Your task to perform on an android device: turn on wifi Image 0: 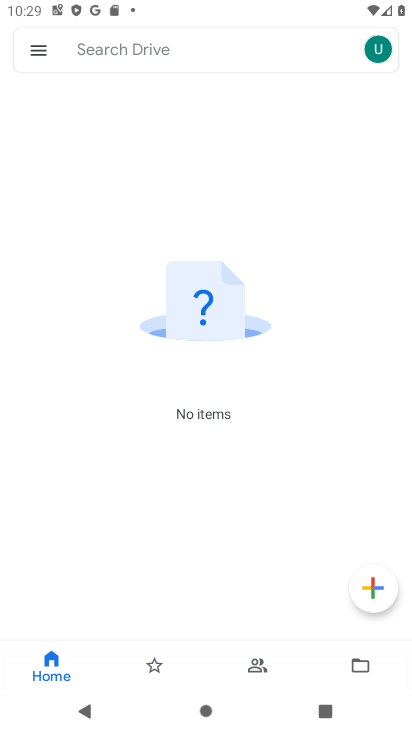
Step 0: press home button
Your task to perform on an android device: turn on wifi Image 1: 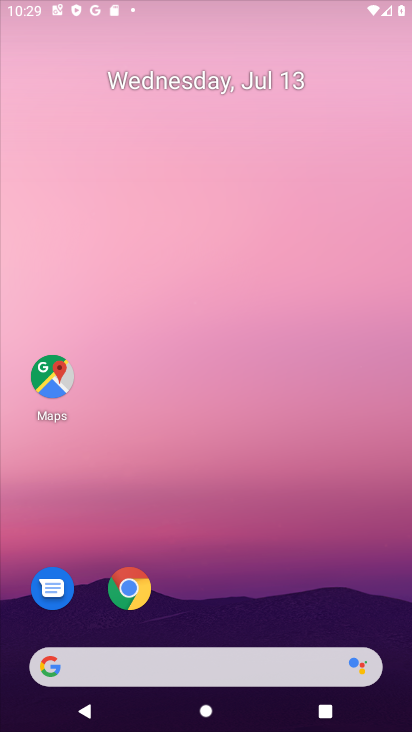
Step 1: drag from (200, 630) to (198, 153)
Your task to perform on an android device: turn on wifi Image 2: 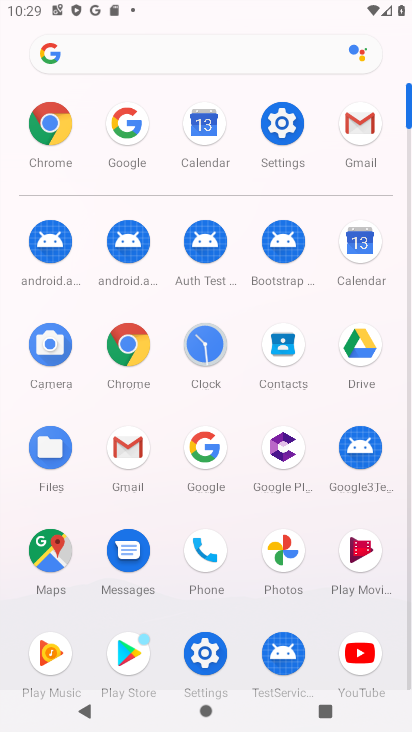
Step 2: click (279, 116)
Your task to perform on an android device: turn on wifi Image 3: 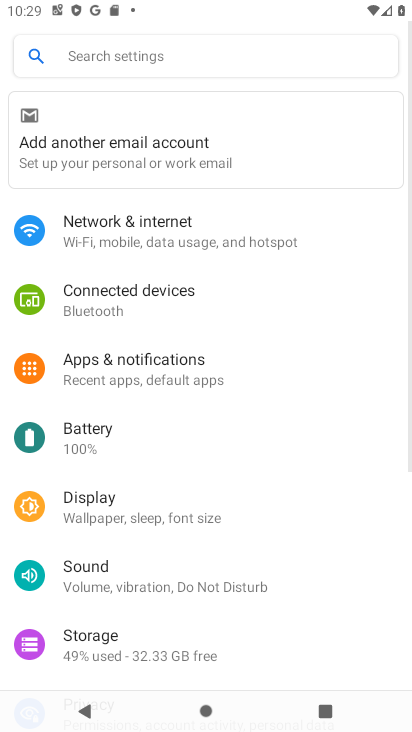
Step 3: click (179, 231)
Your task to perform on an android device: turn on wifi Image 4: 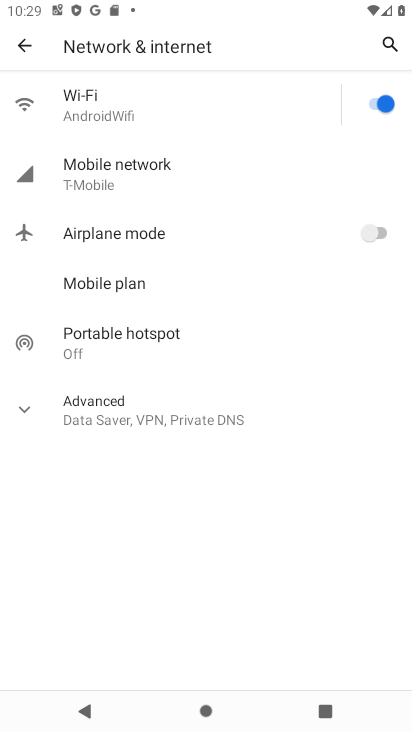
Step 4: task complete